Your task to perform on an android device: turn off javascript in the chrome app Image 0: 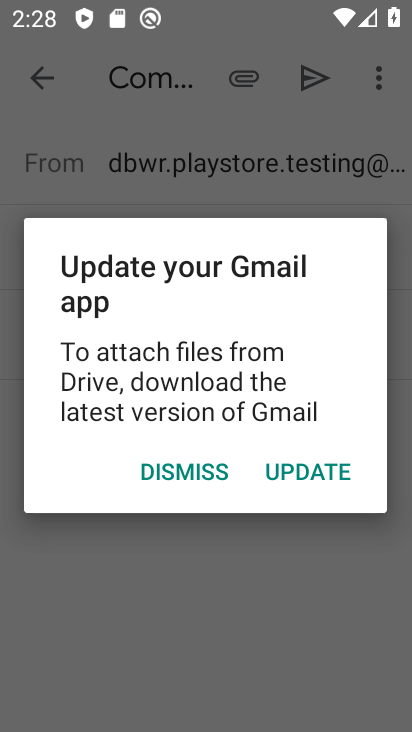
Step 0: press home button
Your task to perform on an android device: turn off javascript in the chrome app Image 1: 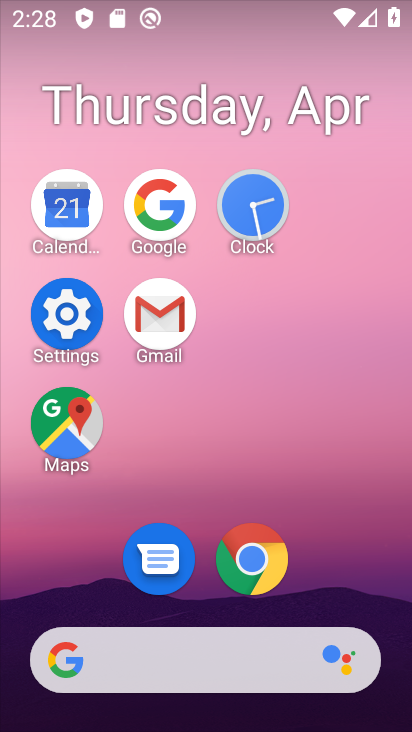
Step 1: click (247, 568)
Your task to perform on an android device: turn off javascript in the chrome app Image 2: 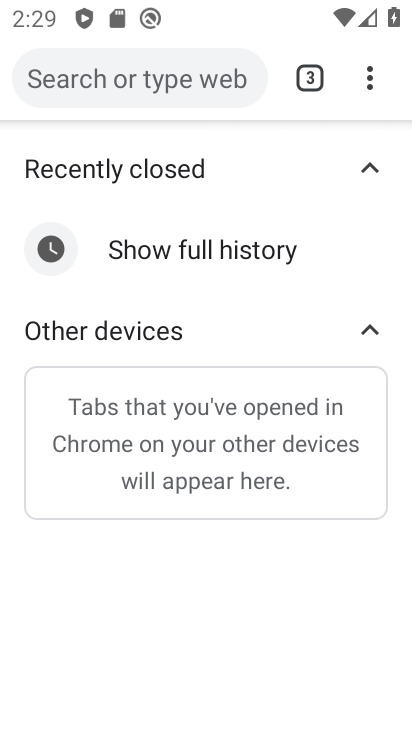
Step 2: click (377, 76)
Your task to perform on an android device: turn off javascript in the chrome app Image 3: 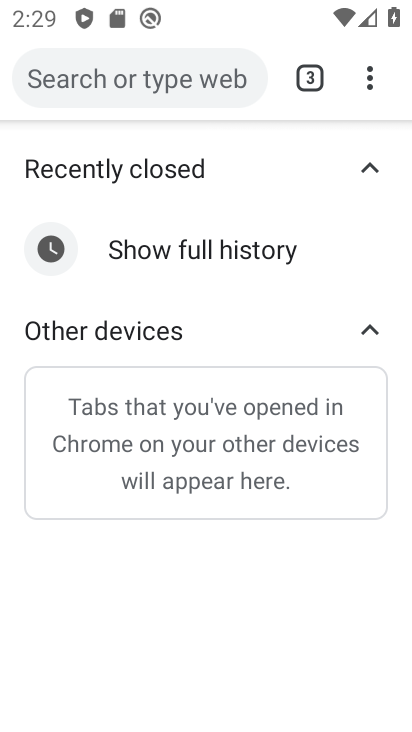
Step 3: click (369, 78)
Your task to perform on an android device: turn off javascript in the chrome app Image 4: 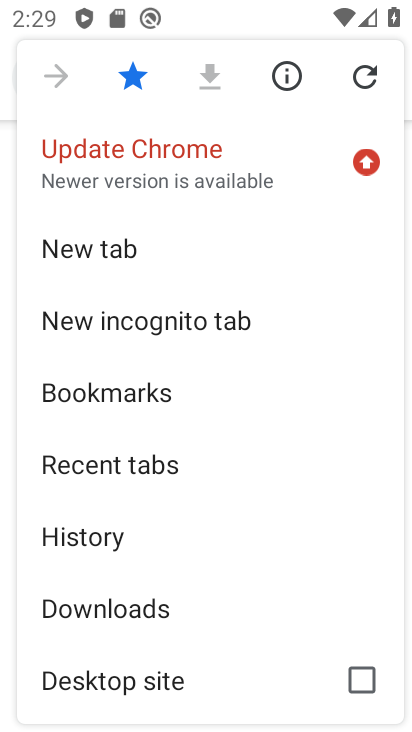
Step 4: drag from (181, 563) to (254, 108)
Your task to perform on an android device: turn off javascript in the chrome app Image 5: 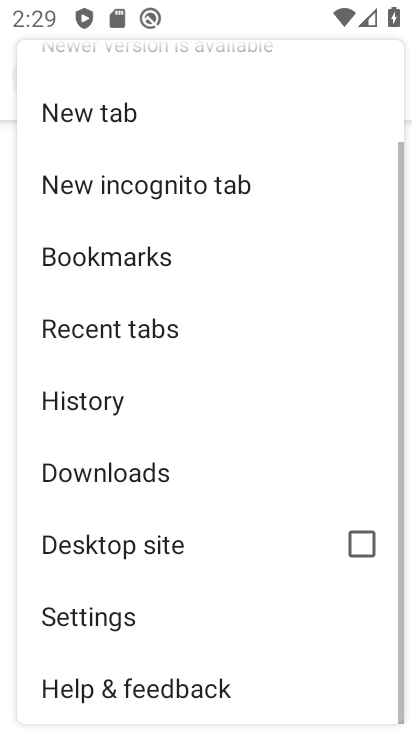
Step 5: click (118, 609)
Your task to perform on an android device: turn off javascript in the chrome app Image 6: 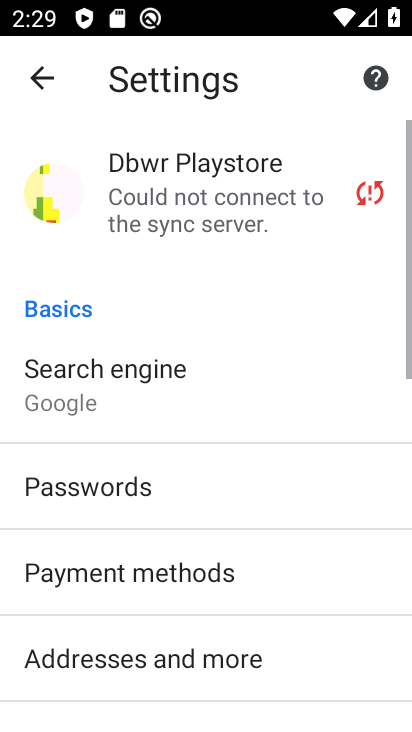
Step 6: drag from (124, 593) to (210, 97)
Your task to perform on an android device: turn off javascript in the chrome app Image 7: 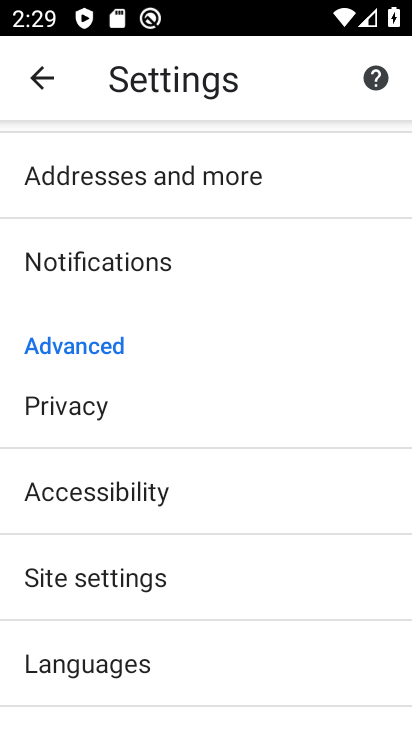
Step 7: drag from (139, 594) to (196, 177)
Your task to perform on an android device: turn off javascript in the chrome app Image 8: 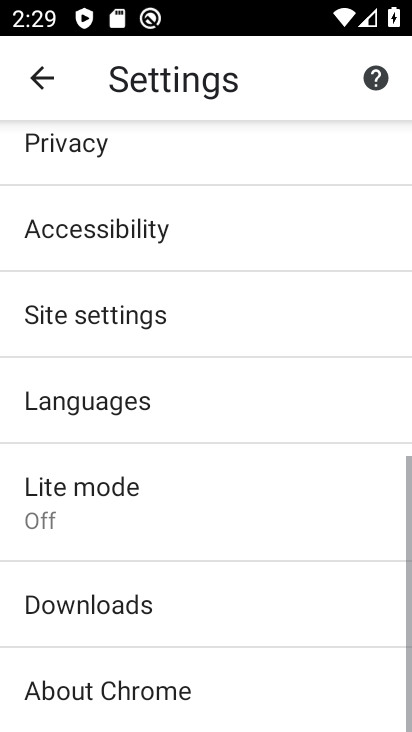
Step 8: click (170, 296)
Your task to perform on an android device: turn off javascript in the chrome app Image 9: 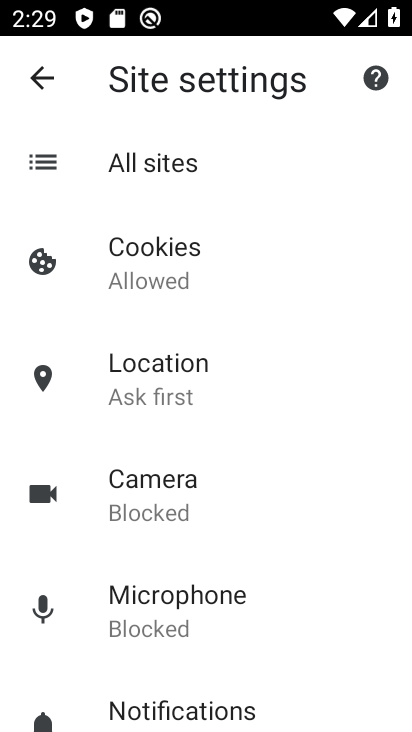
Step 9: drag from (249, 562) to (284, 184)
Your task to perform on an android device: turn off javascript in the chrome app Image 10: 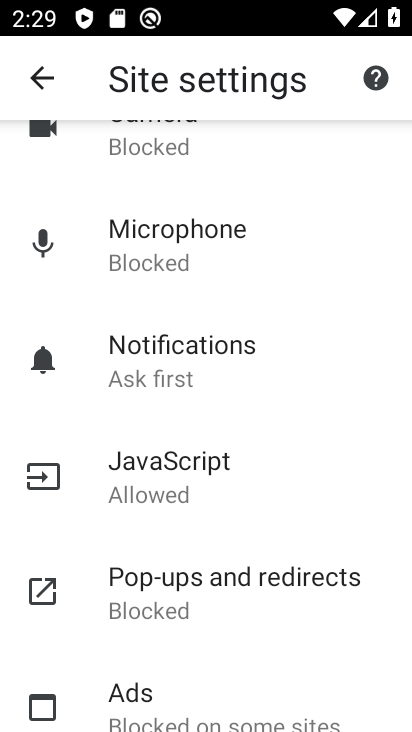
Step 10: click (199, 477)
Your task to perform on an android device: turn off javascript in the chrome app Image 11: 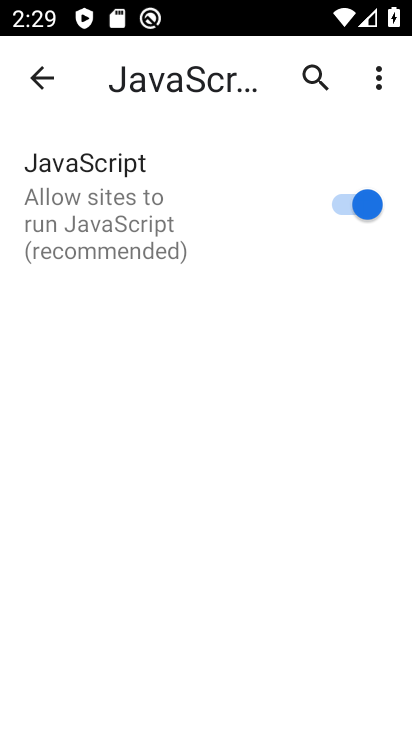
Step 11: click (363, 211)
Your task to perform on an android device: turn off javascript in the chrome app Image 12: 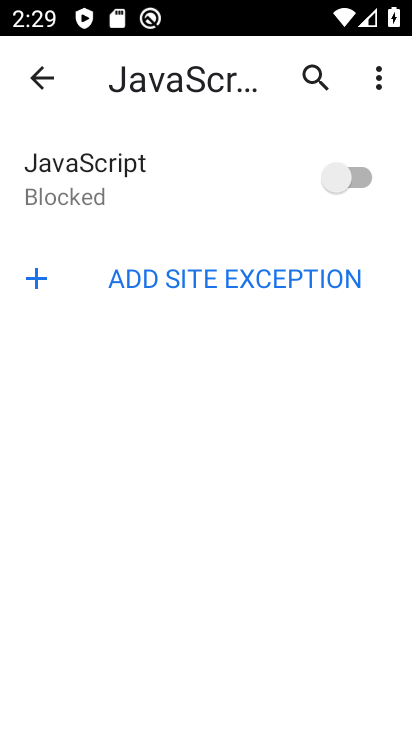
Step 12: task complete